Your task to perform on an android device: Open settings Image 0: 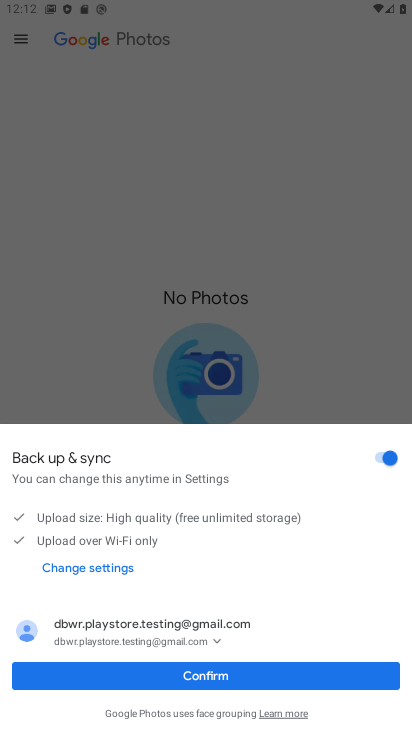
Step 0: click (321, 339)
Your task to perform on an android device: Open settings Image 1: 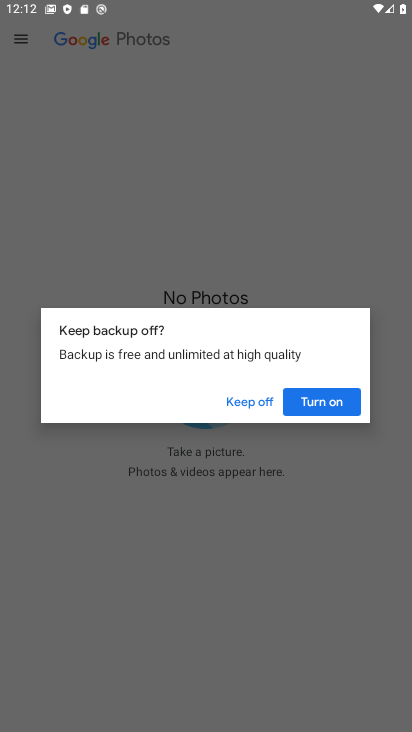
Step 1: press home button
Your task to perform on an android device: Open settings Image 2: 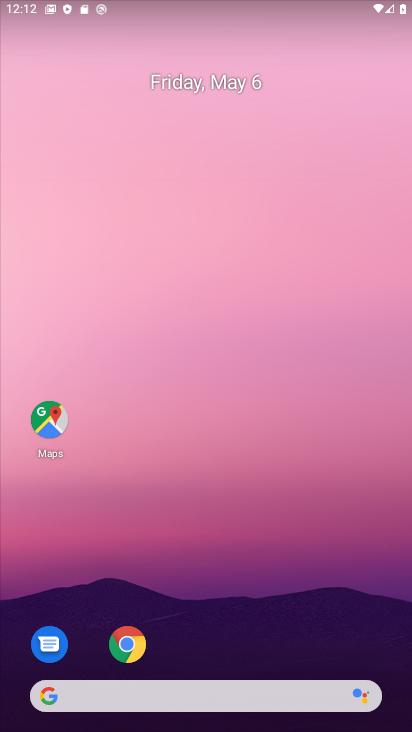
Step 2: drag from (292, 646) to (299, 6)
Your task to perform on an android device: Open settings Image 3: 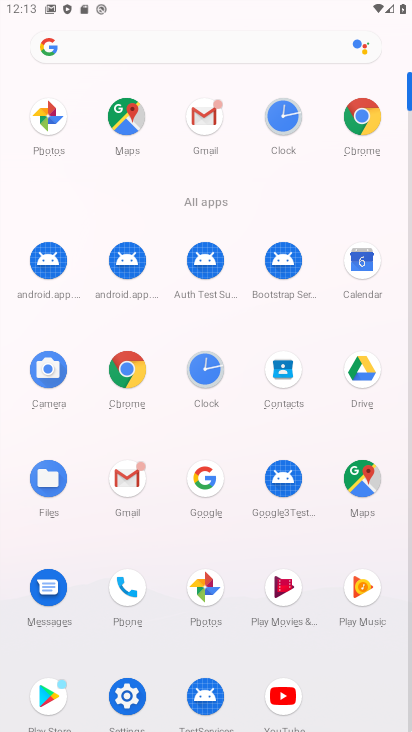
Step 3: click (130, 694)
Your task to perform on an android device: Open settings Image 4: 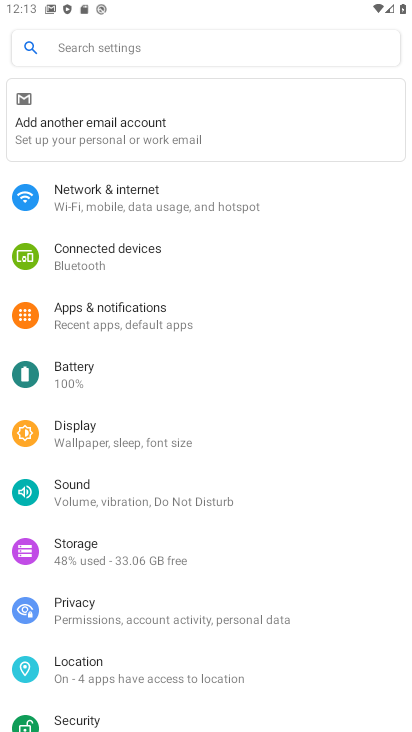
Step 4: task complete